Your task to perform on an android device: Open the calendar app, open the side menu, and click the "Day" option Image 0: 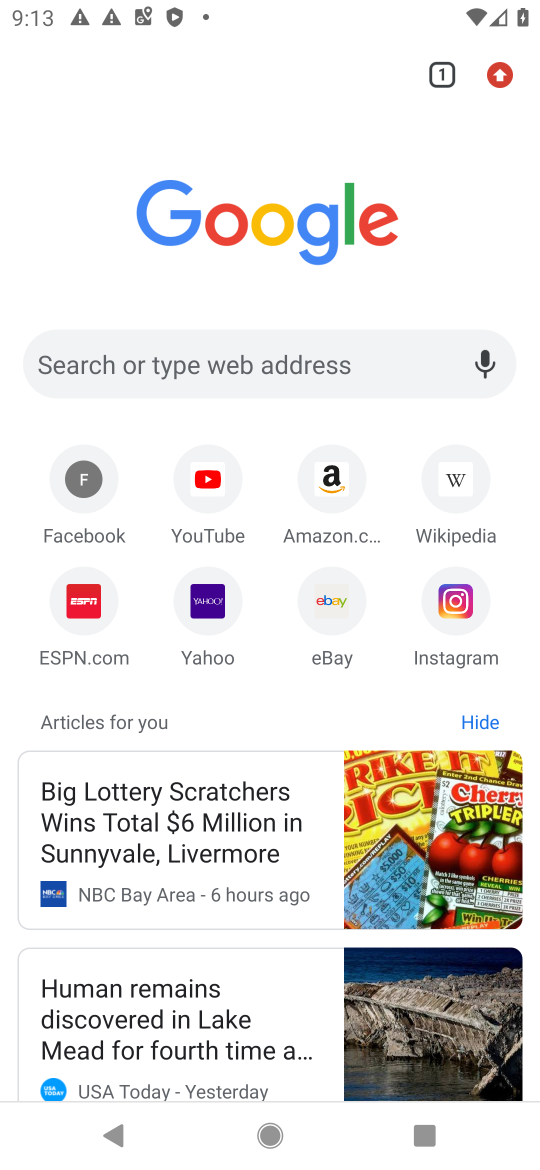
Step 0: press home button
Your task to perform on an android device: Open the calendar app, open the side menu, and click the "Day" option Image 1: 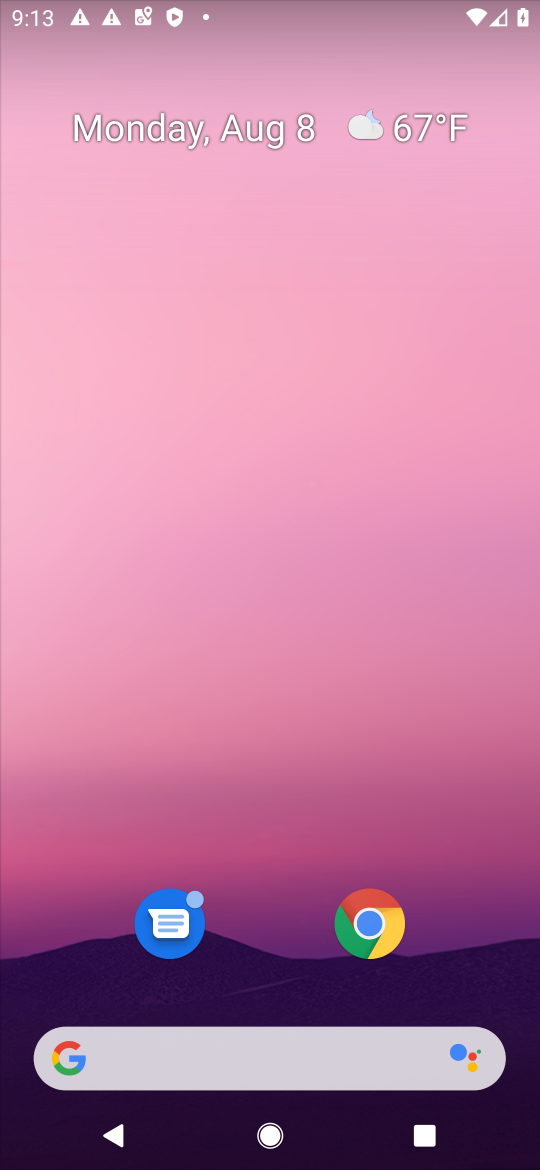
Step 1: drag from (75, 1125) to (354, 400)
Your task to perform on an android device: Open the calendar app, open the side menu, and click the "Day" option Image 2: 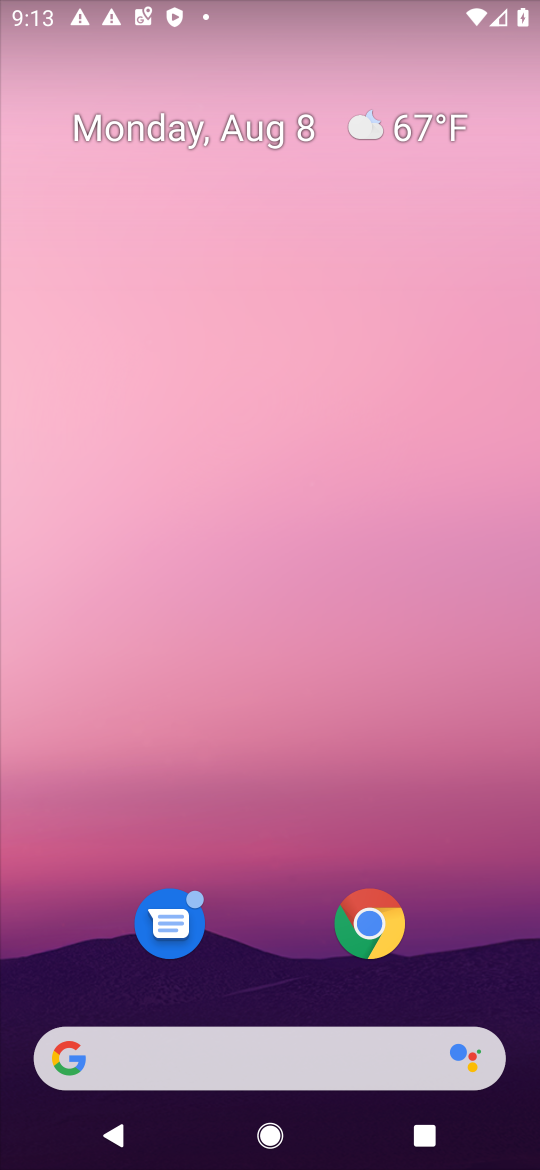
Step 2: drag from (41, 1134) to (362, 446)
Your task to perform on an android device: Open the calendar app, open the side menu, and click the "Day" option Image 3: 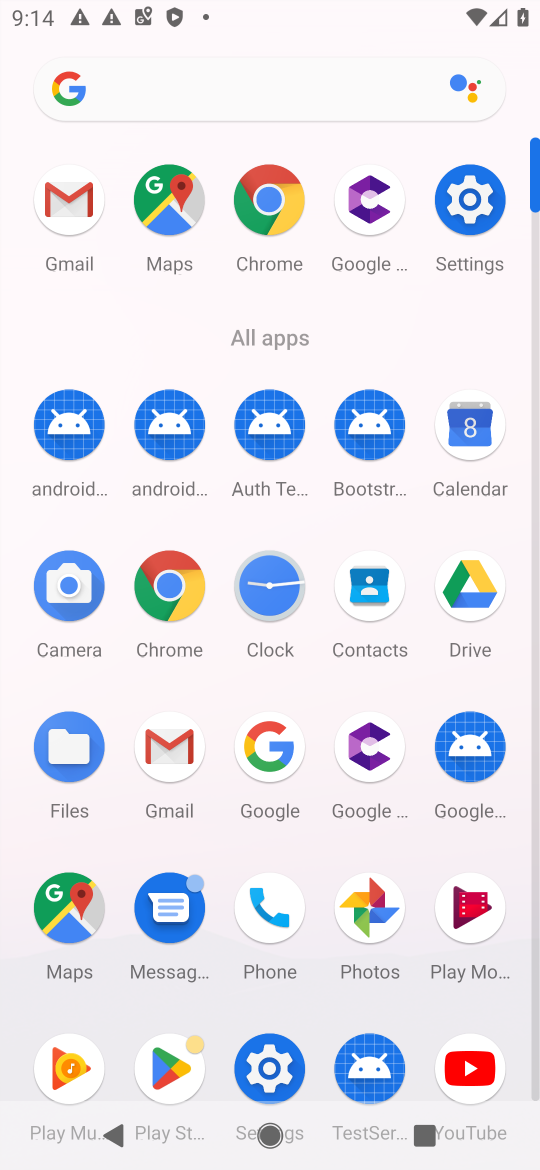
Step 3: click (459, 455)
Your task to perform on an android device: Open the calendar app, open the side menu, and click the "Day" option Image 4: 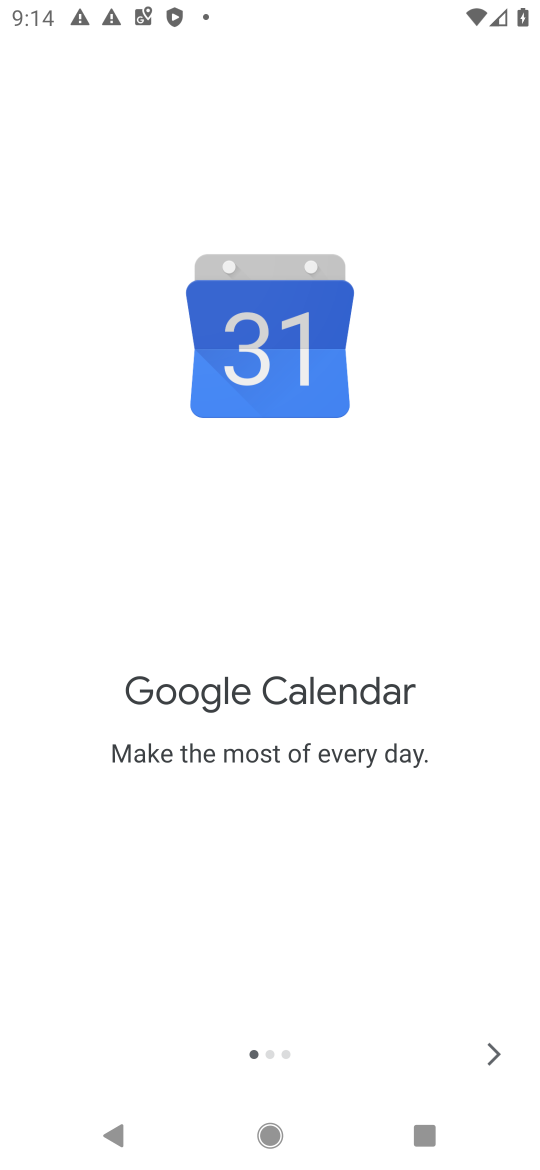
Step 4: click (492, 1047)
Your task to perform on an android device: Open the calendar app, open the side menu, and click the "Day" option Image 5: 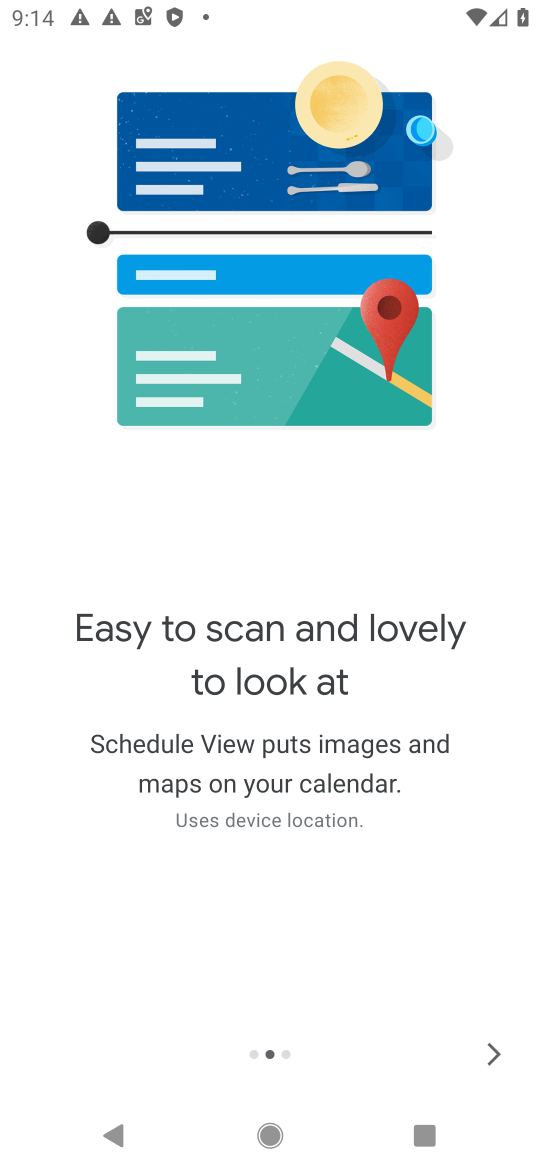
Step 5: click (492, 1047)
Your task to perform on an android device: Open the calendar app, open the side menu, and click the "Day" option Image 6: 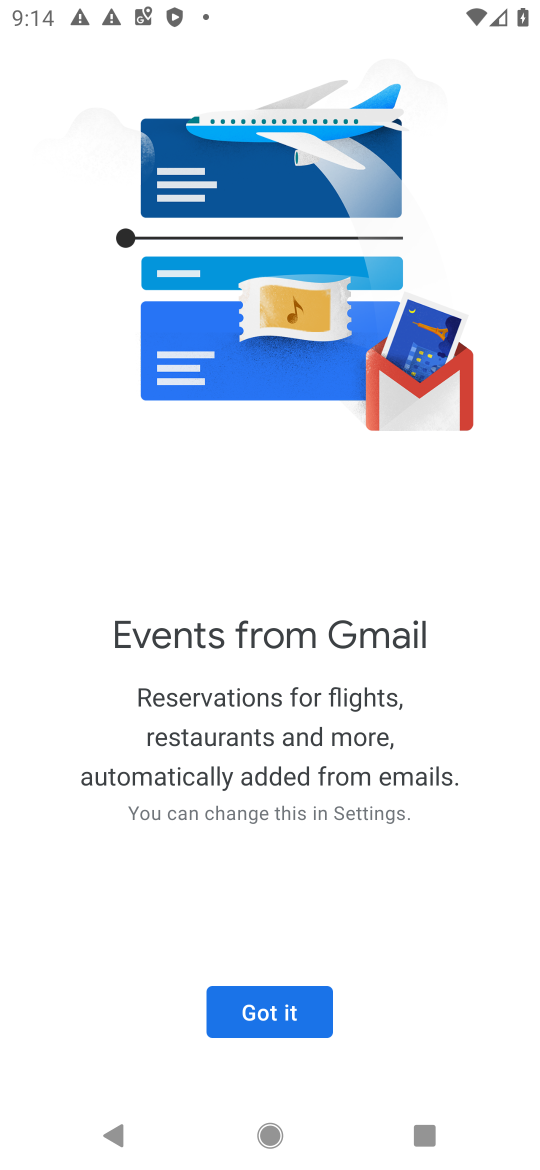
Step 6: click (267, 1012)
Your task to perform on an android device: Open the calendar app, open the side menu, and click the "Day" option Image 7: 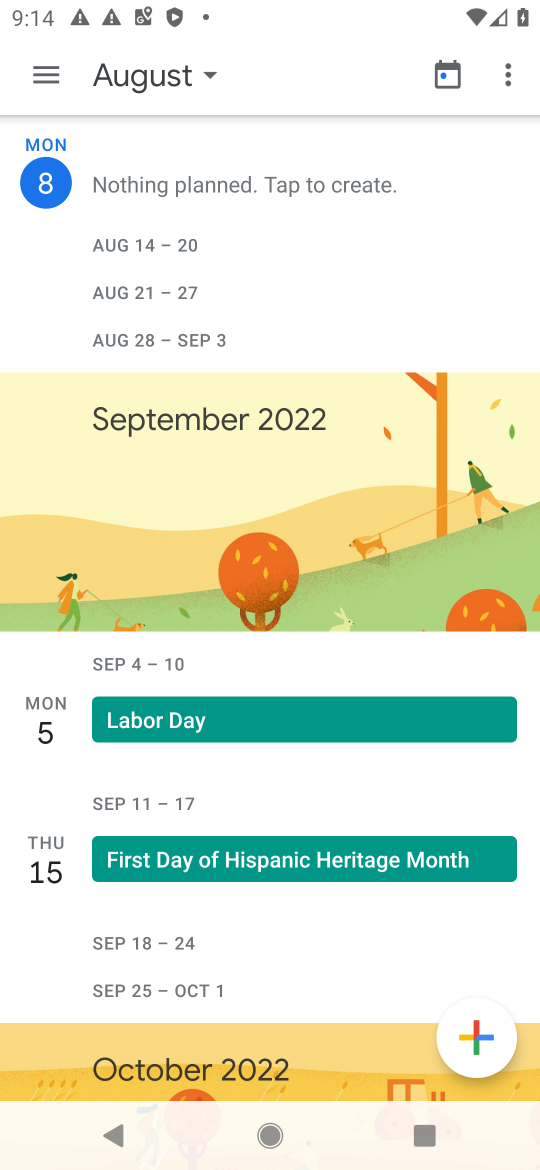
Step 7: click (197, 72)
Your task to perform on an android device: Open the calendar app, open the side menu, and click the "Day" option Image 8: 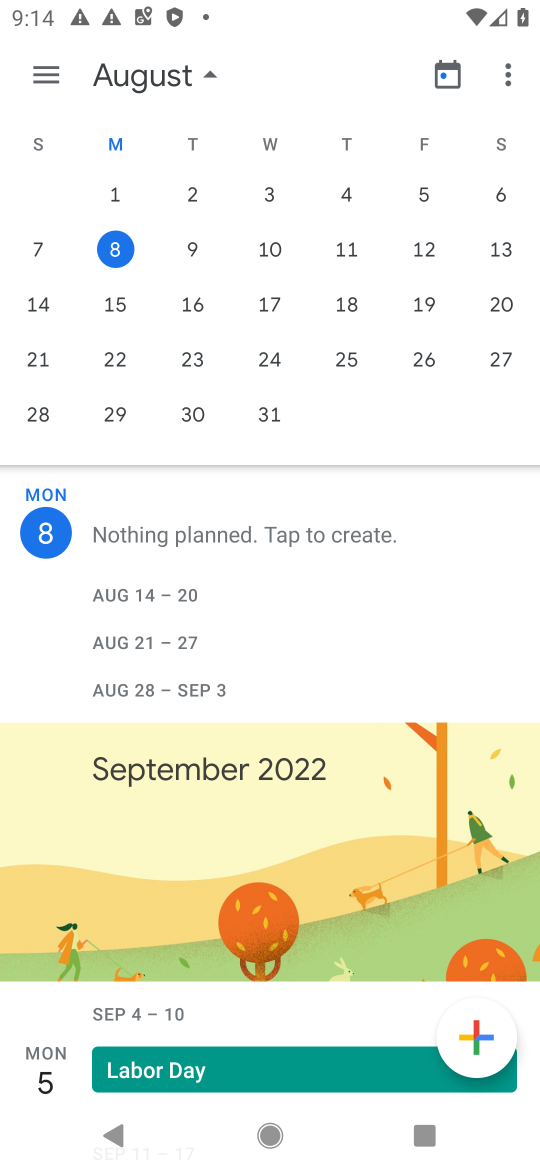
Step 8: click (54, 75)
Your task to perform on an android device: Open the calendar app, open the side menu, and click the "Day" option Image 9: 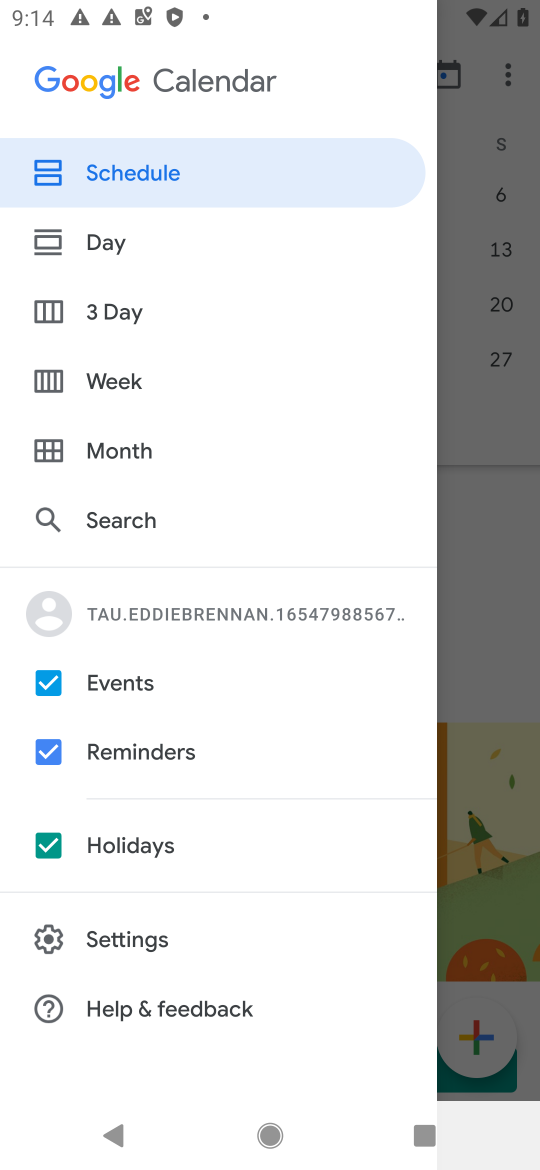
Step 9: click (98, 245)
Your task to perform on an android device: Open the calendar app, open the side menu, and click the "Day" option Image 10: 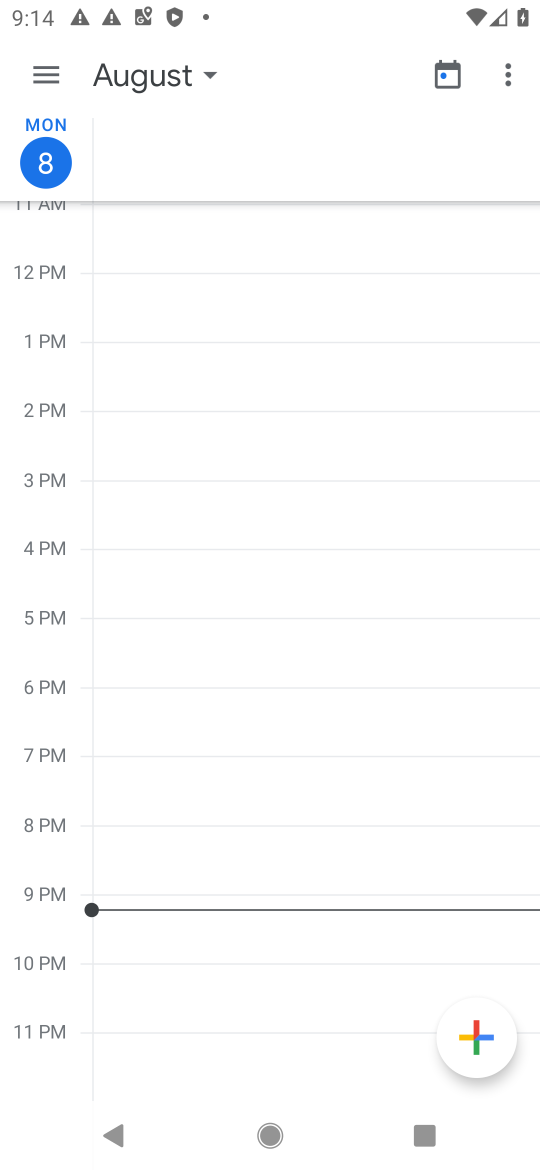
Step 10: task complete